Your task to perform on an android device: open the mobile data screen to see how much data has been used Image 0: 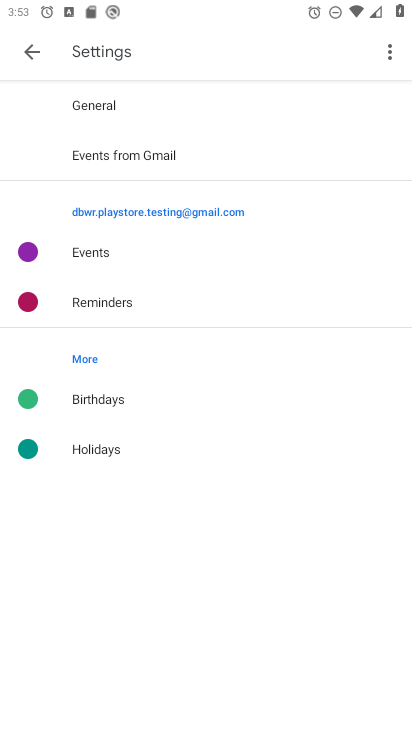
Step 0: press home button
Your task to perform on an android device: open the mobile data screen to see how much data has been used Image 1: 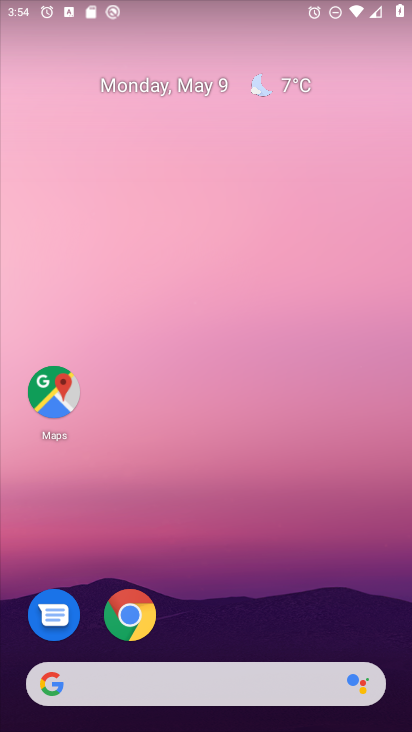
Step 1: drag from (360, 619) to (282, 141)
Your task to perform on an android device: open the mobile data screen to see how much data has been used Image 2: 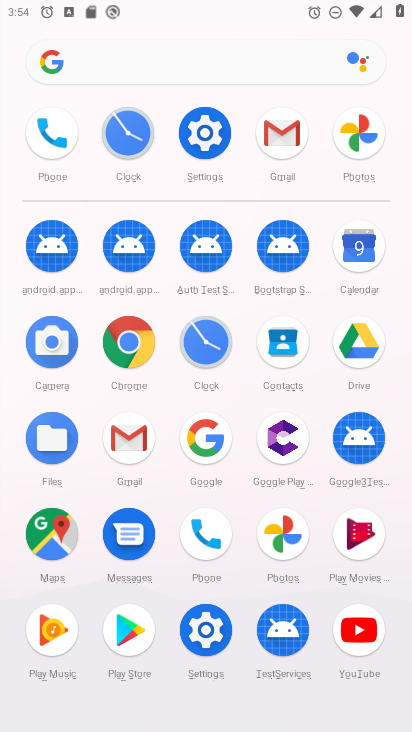
Step 2: click (205, 630)
Your task to perform on an android device: open the mobile data screen to see how much data has been used Image 3: 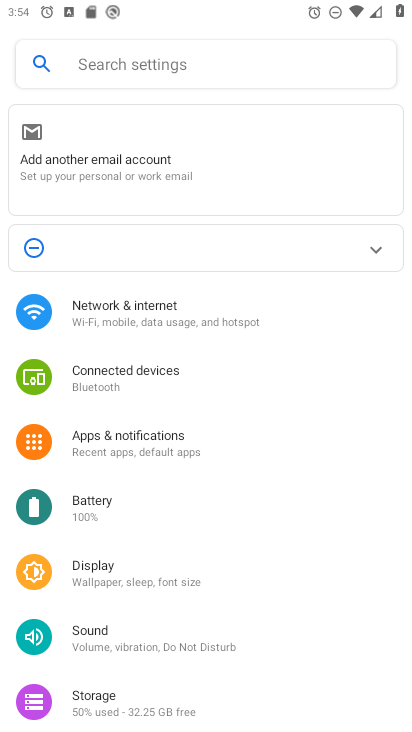
Step 3: click (105, 305)
Your task to perform on an android device: open the mobile data screen to see how much data has been used Image 4: 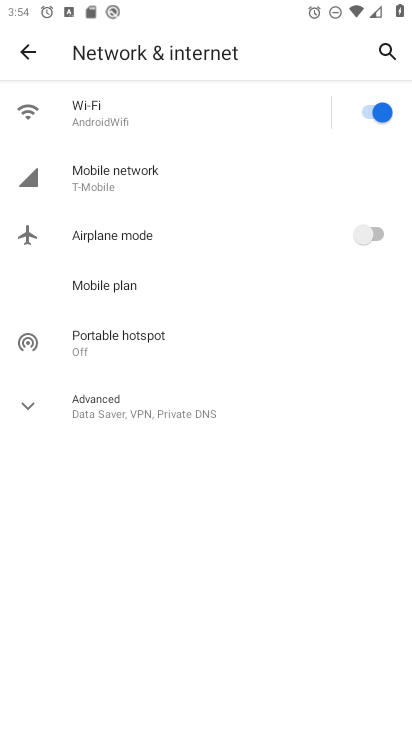
Step 4: click (120, 171)
Your task to perform on an android device: open the mobile data screen to see how much data has been used Image 5: 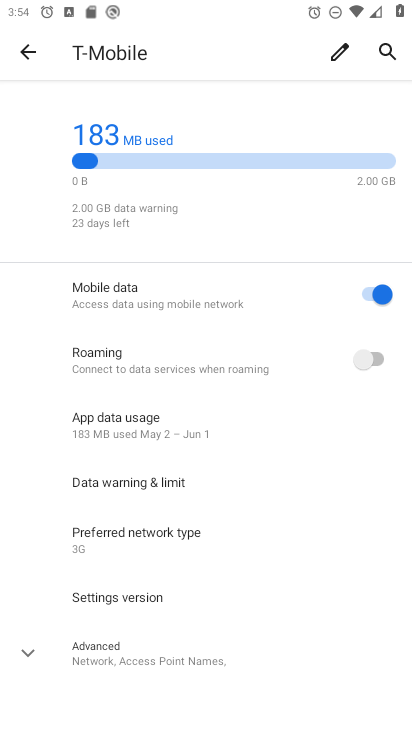
Step 5: task complete